Your task to perform on an android device: toggle pop-ups in chrome Image 0: 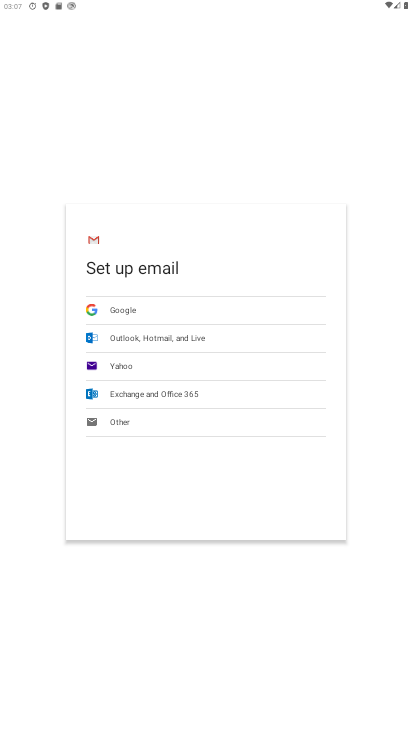
Step 0: press home button
Your task to perform on an android device: toggle pop-ups in chrome Image 1: 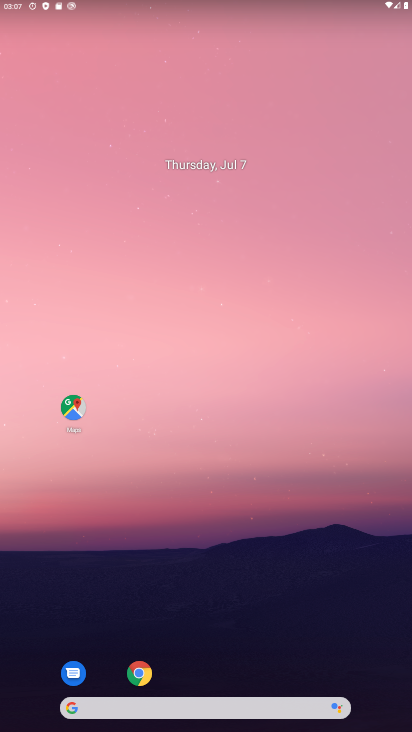
Step 1: click (148, 682)
Your task to perform on an android device: toggle pop-ups in chrome Image 2: 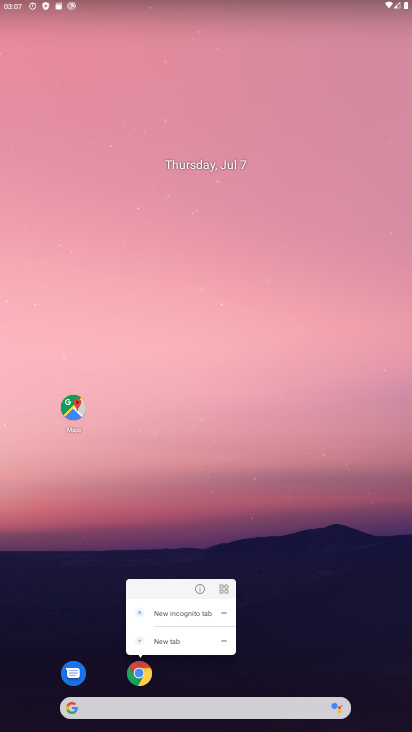
Step 2: click (144, 670)
Your task to perform on an android device: toggle pop-ups in chrome Image 3: 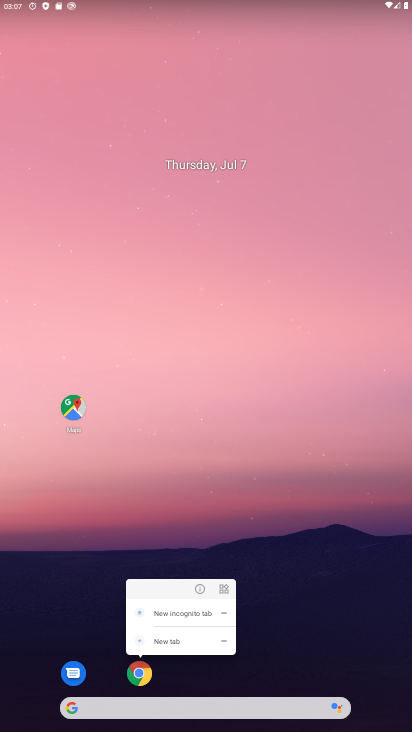
Step 3: click (147, 665)
Your task to perform on an android device: toggle pop-ups in chrome Image 4: 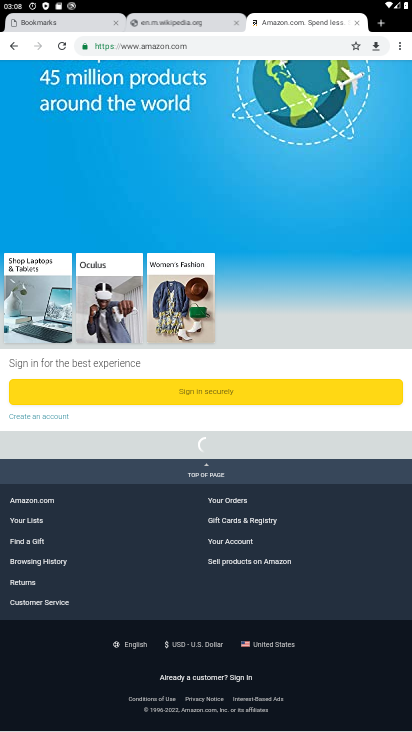
Step 4: click (395, 41)
Your task to perform on an android device: toggle pop-ups in chrome Image 5: 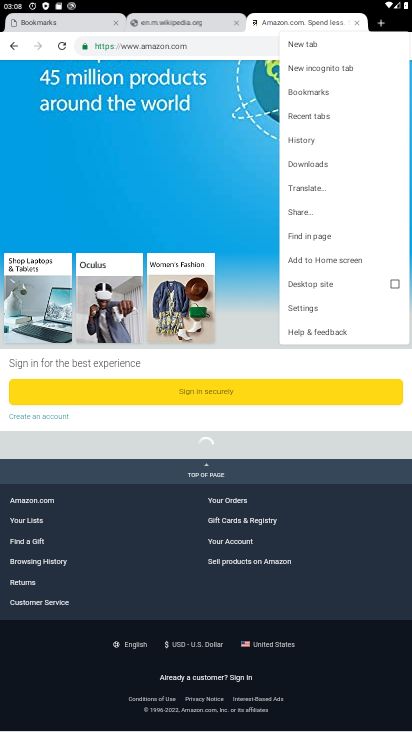
Step 5: click (318, 304)
Your task to perform on an android device: toggle pop-ups in chrome Image 6: 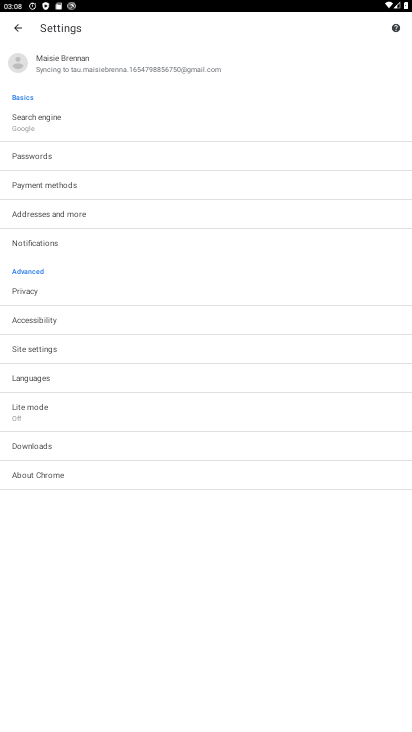
Step 6: click (66, 350)
Your task to perform on an android device: toggle pop-ups in chrome Image 7: 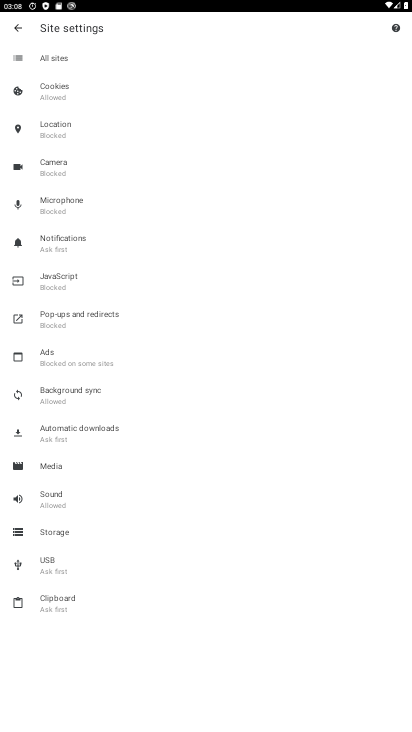
Step 7: click (66, 307)
Your task to perform on an android device: toggle pop-ups in chrome Image 8: 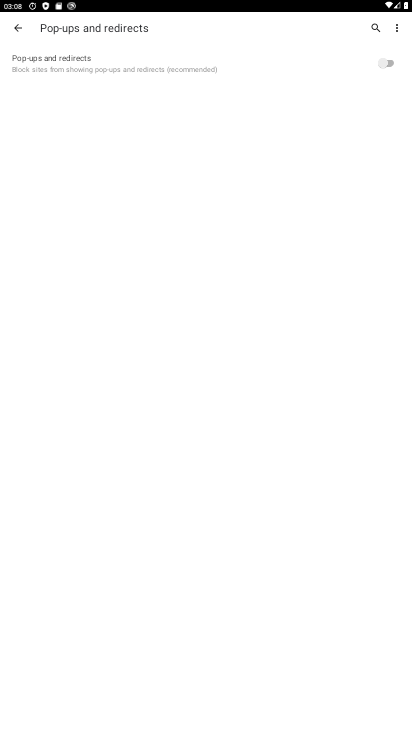
Step 8: click (389, 61)
Your task to perform on an android device: toggle pop-ups in chrome Image 9: 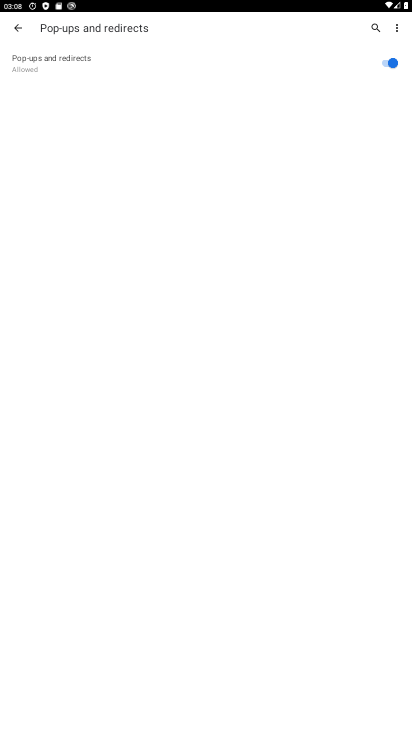
Step 9: task complete